Your task to perform on an android device: Open network settings Image 0: 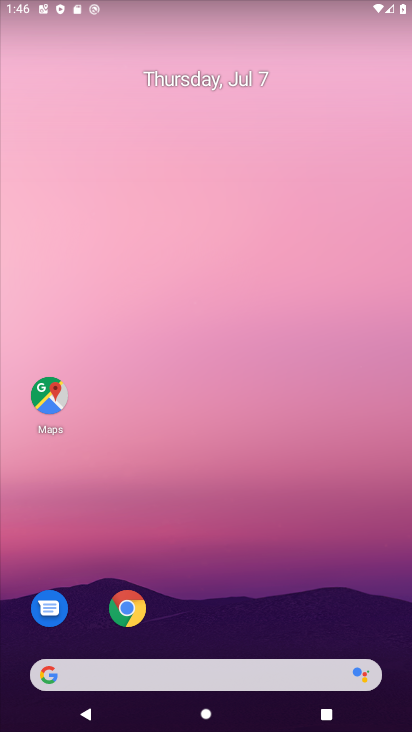
Step 0: drag from (232, 542) to (292, 3)
Your task to perform on an android device: Open network settings Image 1: 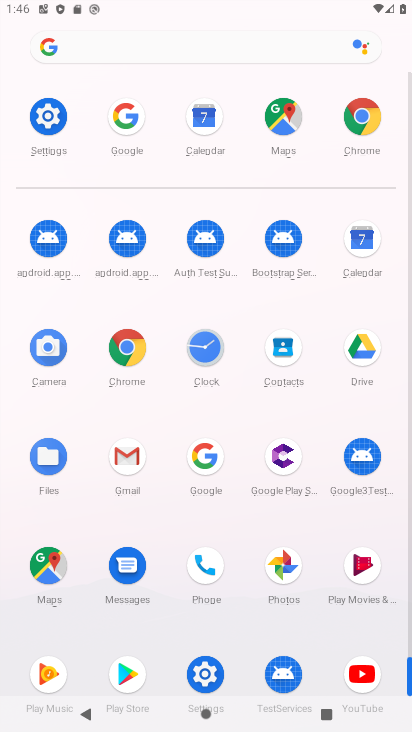
Step 1: click (46, 123)
Your task to perform on an android device: Open network settings Image 2: 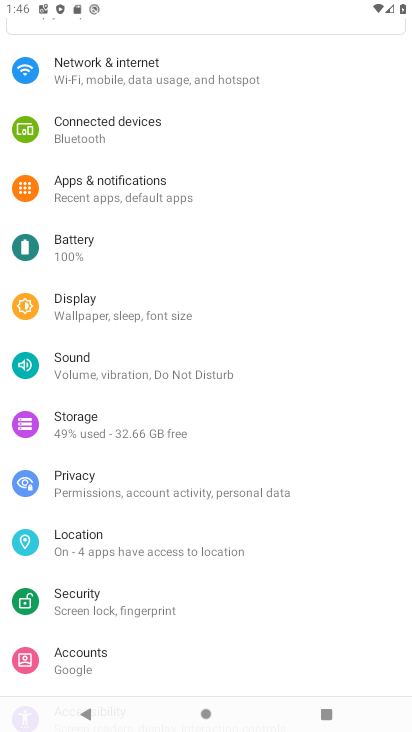
Step 2: click (139, 84)
Your task to perform on an android device: Open network settings Image 3: 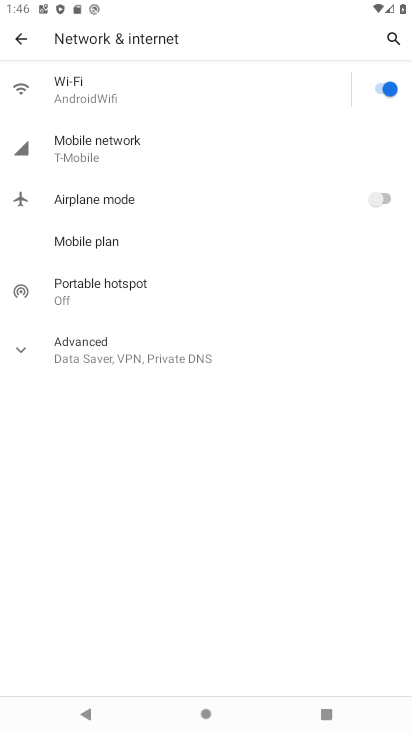
Step 3: drag from (186, 169) to (201, 553)
Your task to perform on an android device: Open network settings Image 4: 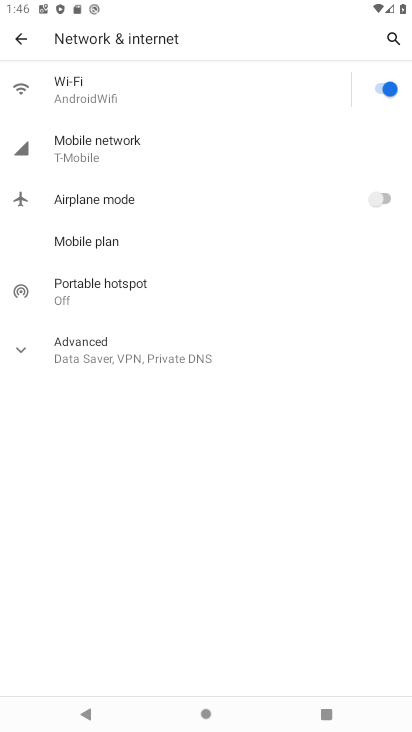
Step 4: click (121, 154)
Your task to perform on an android device: Open network settings Image 5: 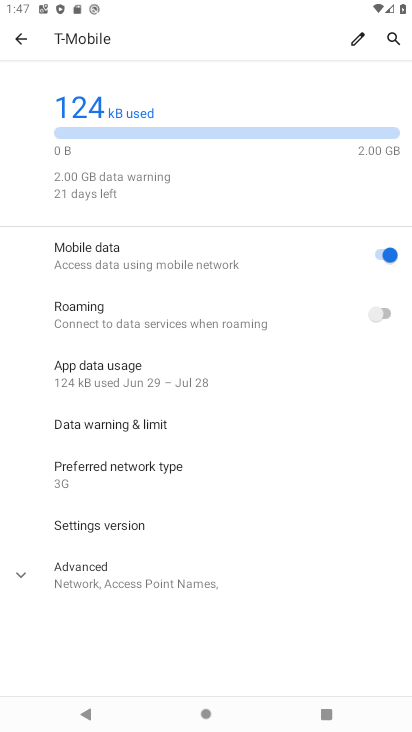
Step 5: task complete